Your task to perform on an android device: manage bookmarks in the chrome app Image 0: 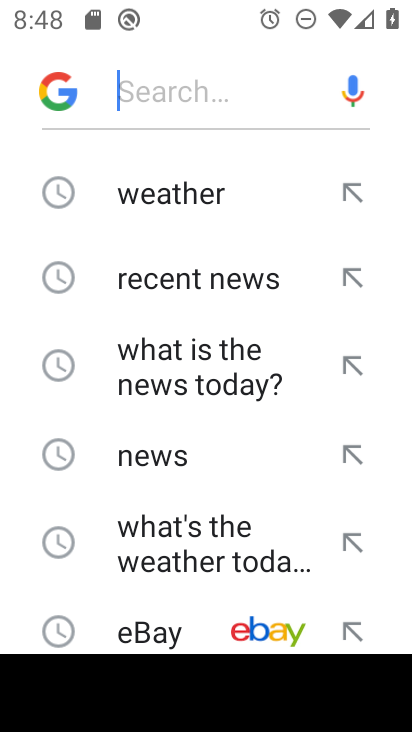
Step 0: press home button
Your task to perform on an android device: manage bookmarks in the chrome app Image 1: 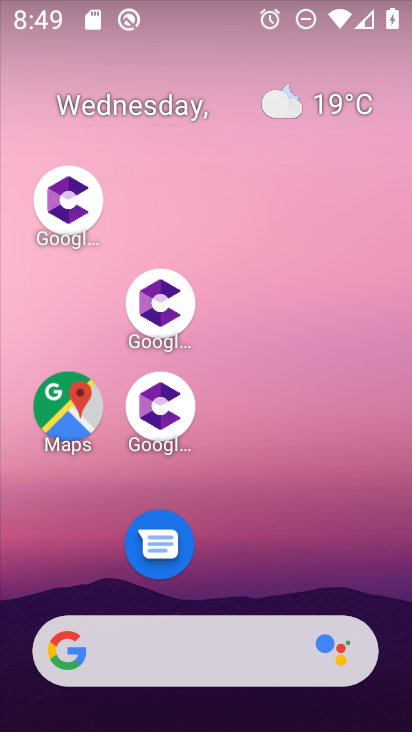
Step 1: drag from (282, 496) to (205, 46)
Your task to perform on an android device: manage bookmarks in the chrome app Image 2: 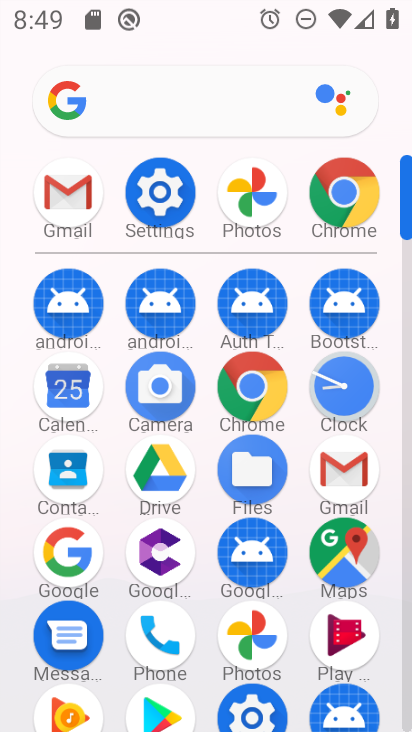
Step 2: click (344, 208)
Your task to perform on an android device: manage bookmarks in the chrome app Image 3: 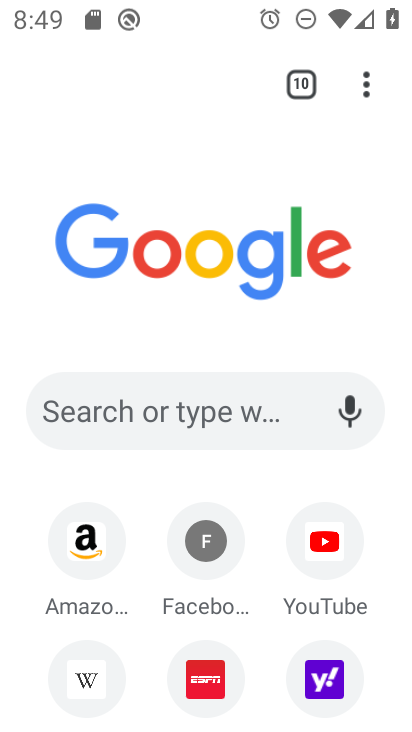
Step 3: click (365, 81)
Your task to perform on an android device: manage bookmarks in the chrome app Image 4: 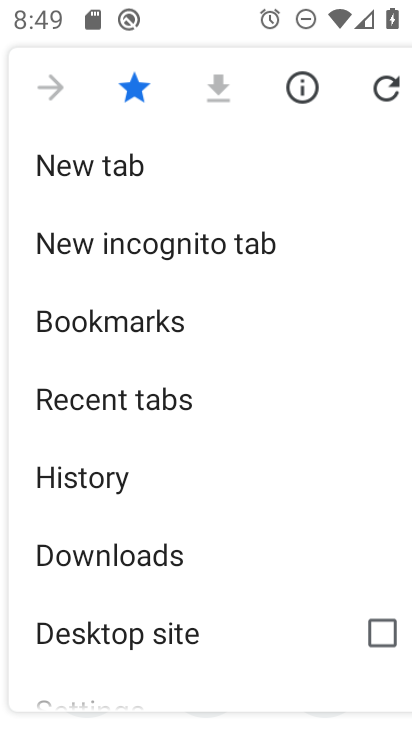
Step 4: click (166, 323)
Your task to perform on an android device: manage bookmarks in the chrome app Image 5: 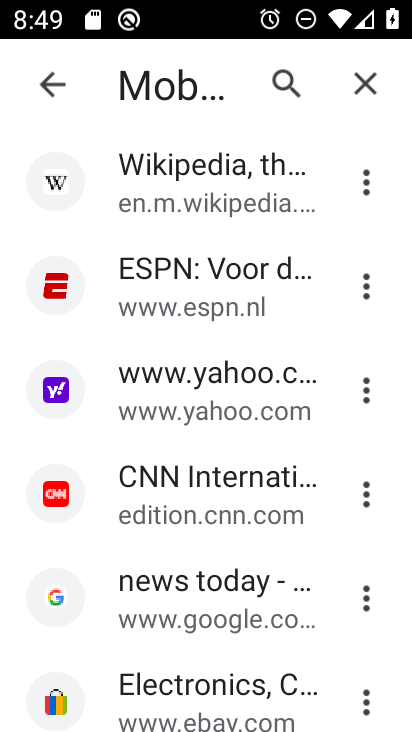
Step 5: click (368, 184)
Your task to perform on an android device: manage bookmarks in the chrome app Image 6: 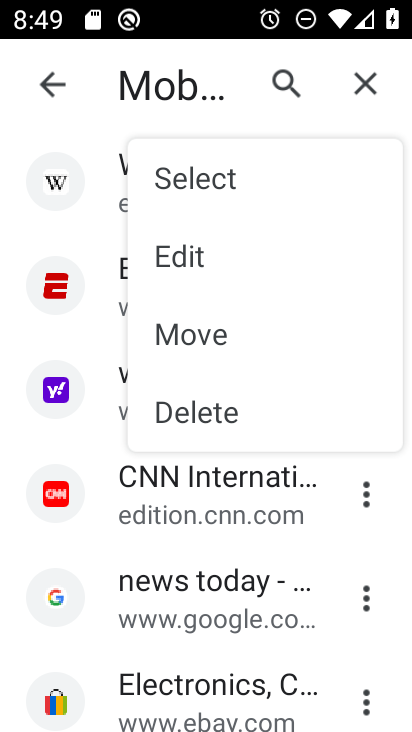
Step 6: click (208, 246)
Your task to perform on an android device: manage bookmarks in the chrome app Image 7: 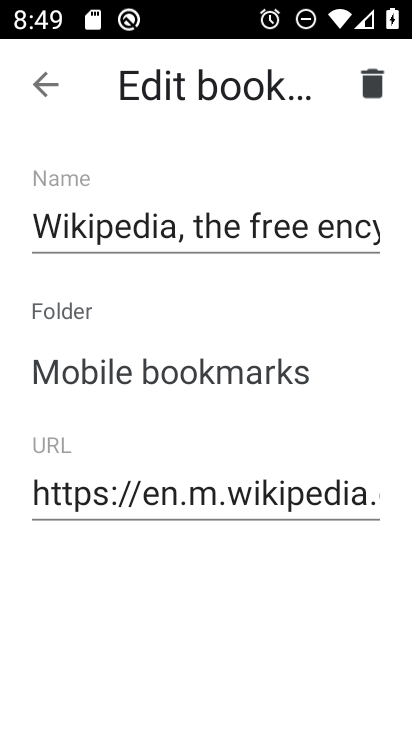
Step 7: task complete